Your task to perform on an android device: Show the shopping cart on newegg.com. Image 0: 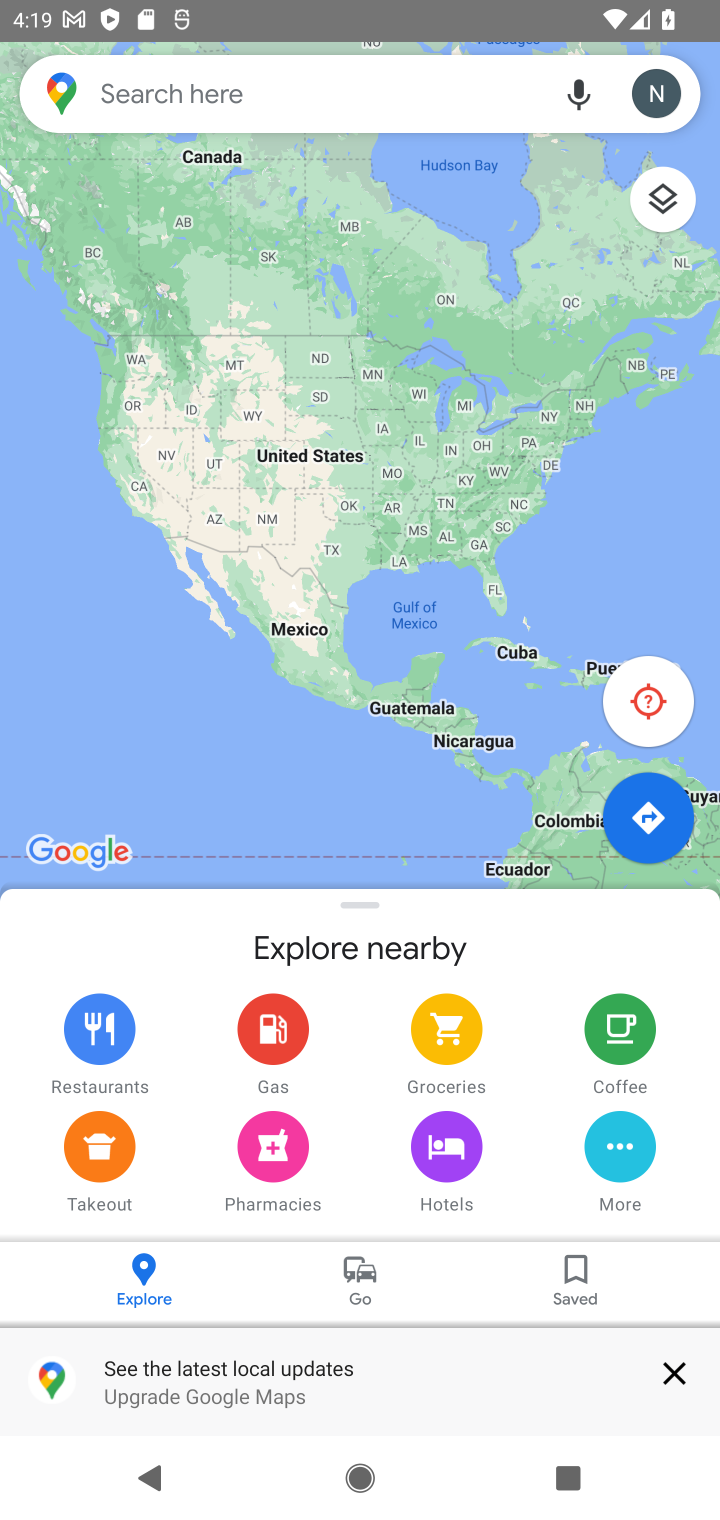
Step 0: press home button
Your task to perform on an android device: Show the shopping cart on newegg.com. Image 1: 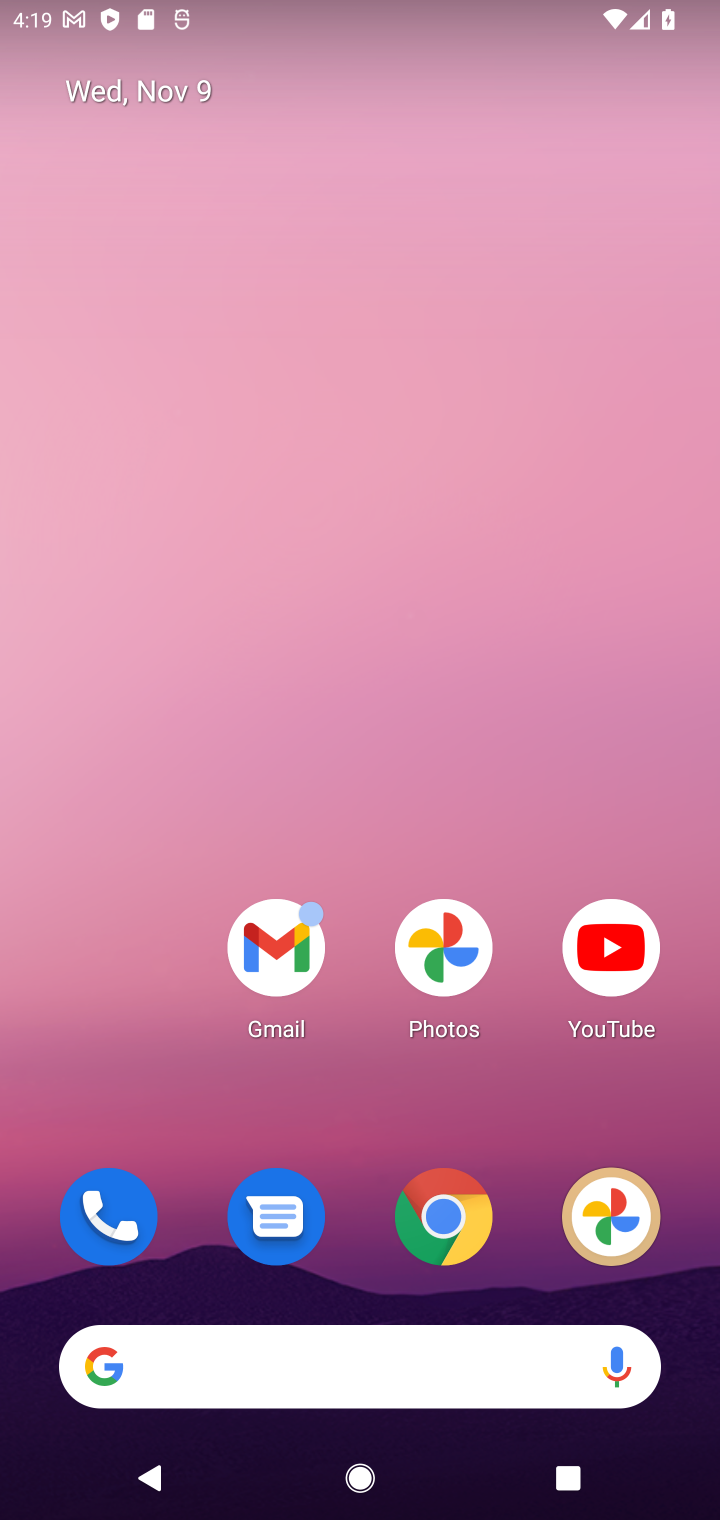
Step 1: drag from (353, 1131) to (320, 250)
Your task to perform on an android device: Show the shopping cart on newegg.com. Image 2: 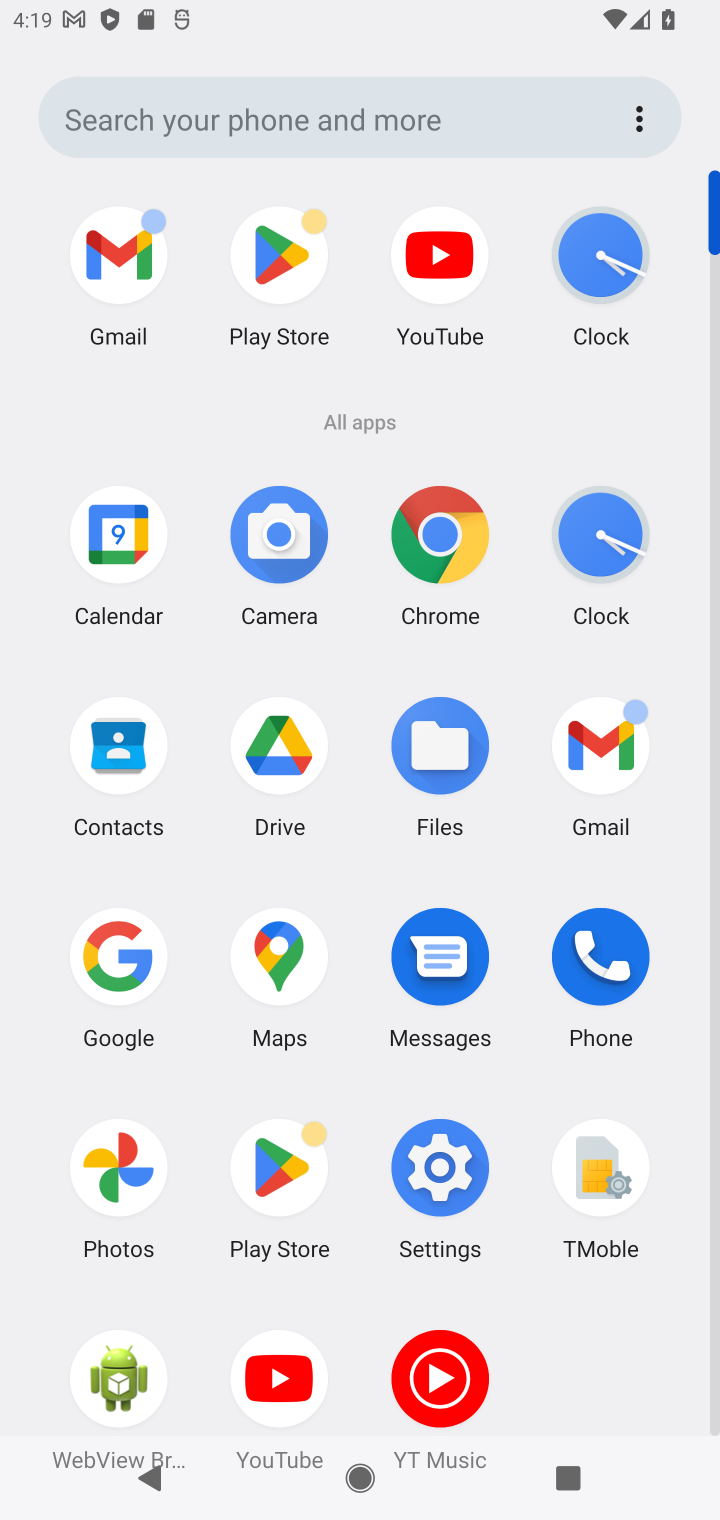
Step 2: click (428, 536)
Your task to perform on an android device: Show the shopping cart on newegg.com. Image 3: 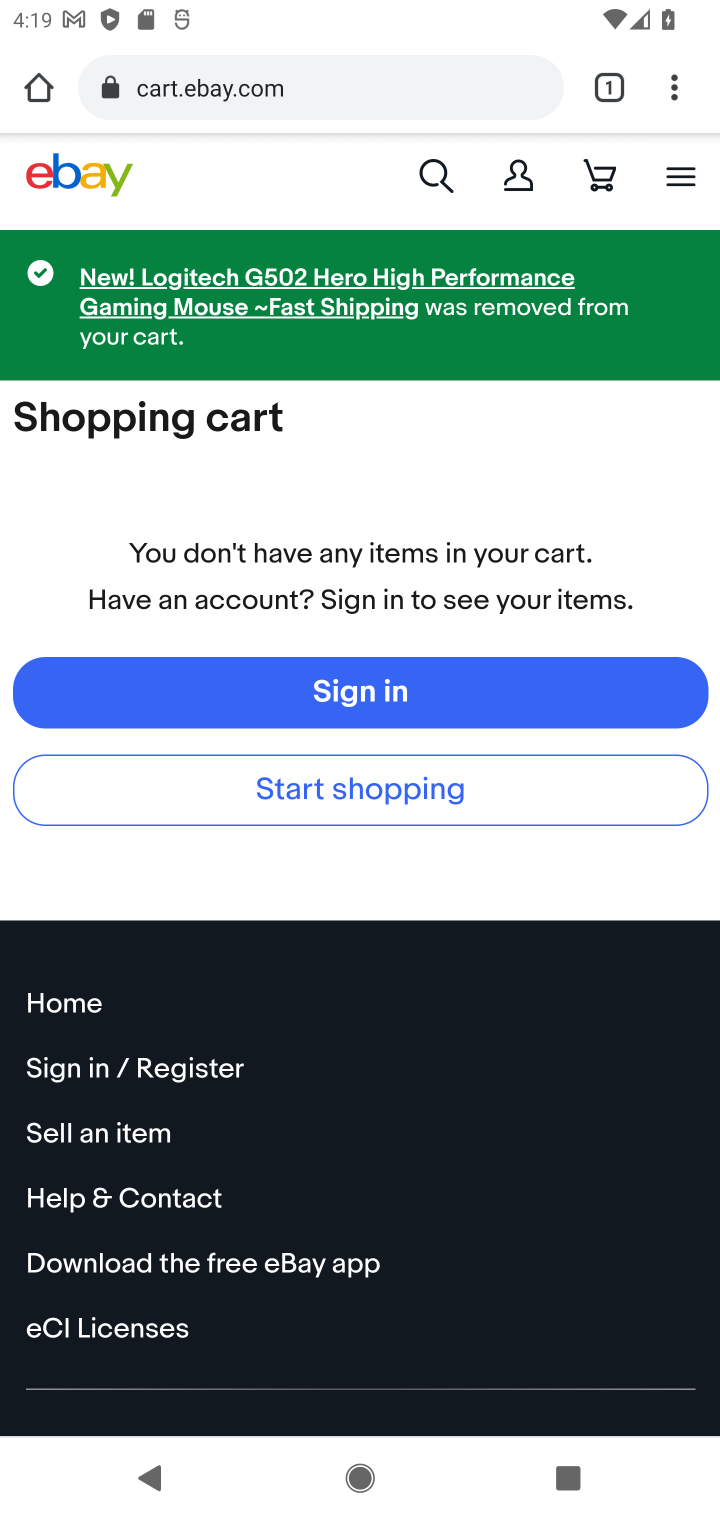
Step 3: click (363, 93)
Your task to perform on an android device: Show the shopping cart on newegg.com. Image 4: 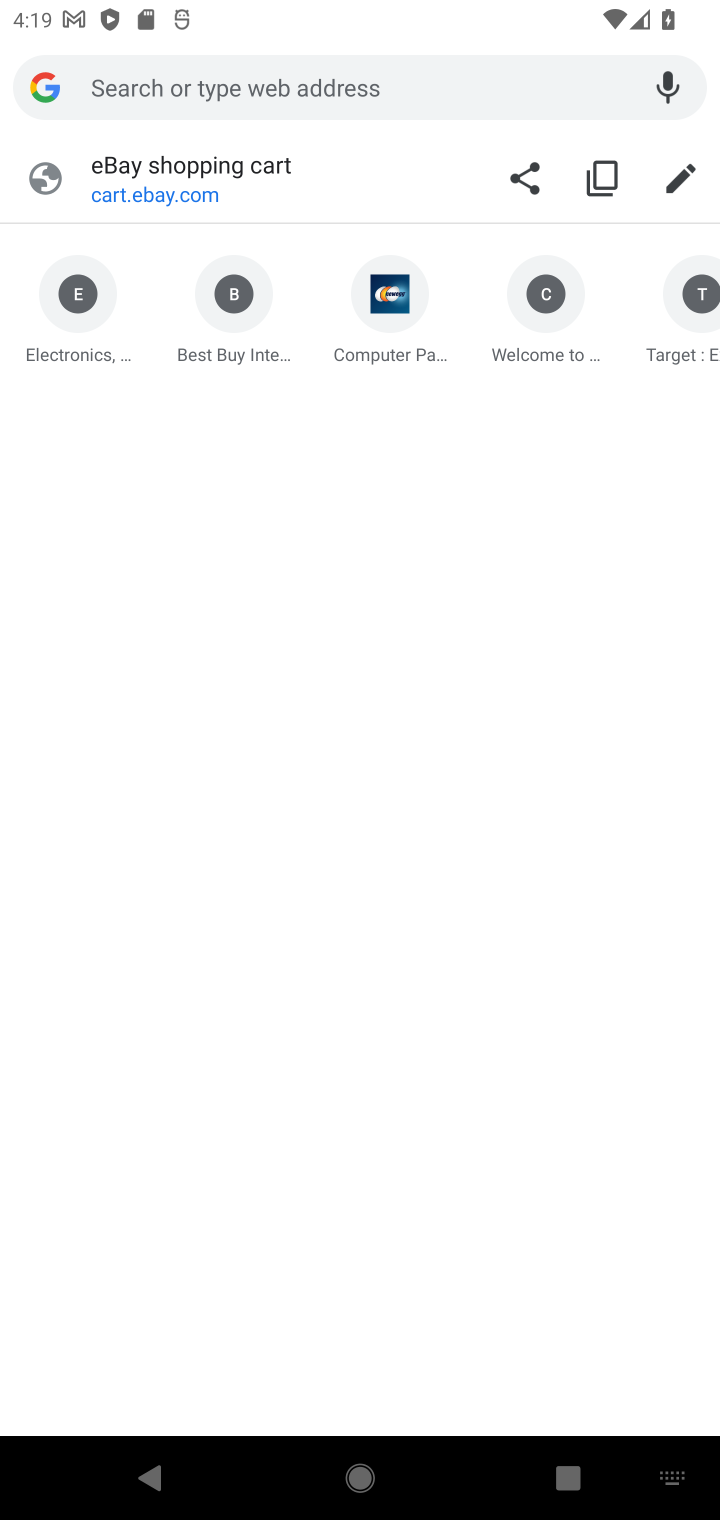
Step 4: type "newegg.com"
Your task to perform on an android device: Show the shopping cart on newegg.com. Image 5: 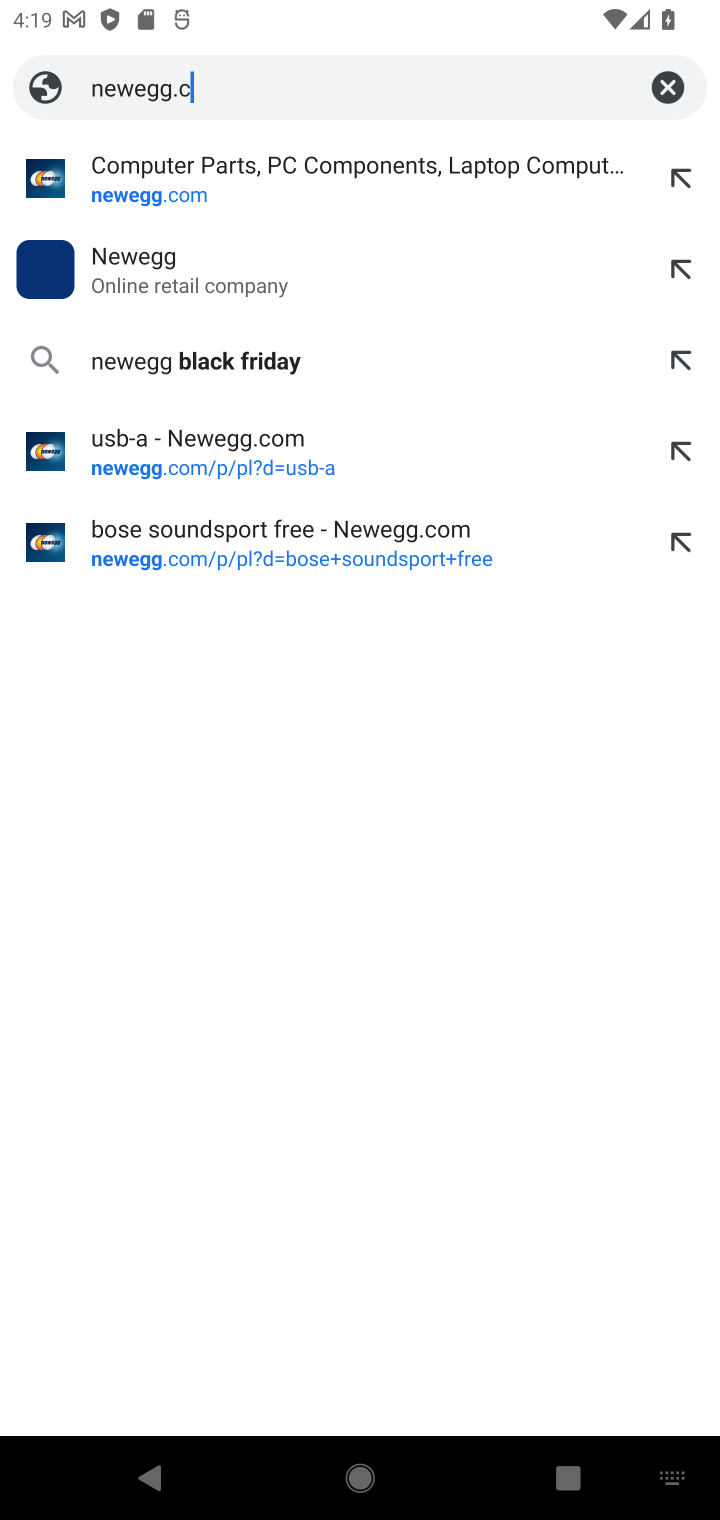
Step 5: press enter
Your task to perform on an android device: Show the shopping cart on newegg.com. Image 6: 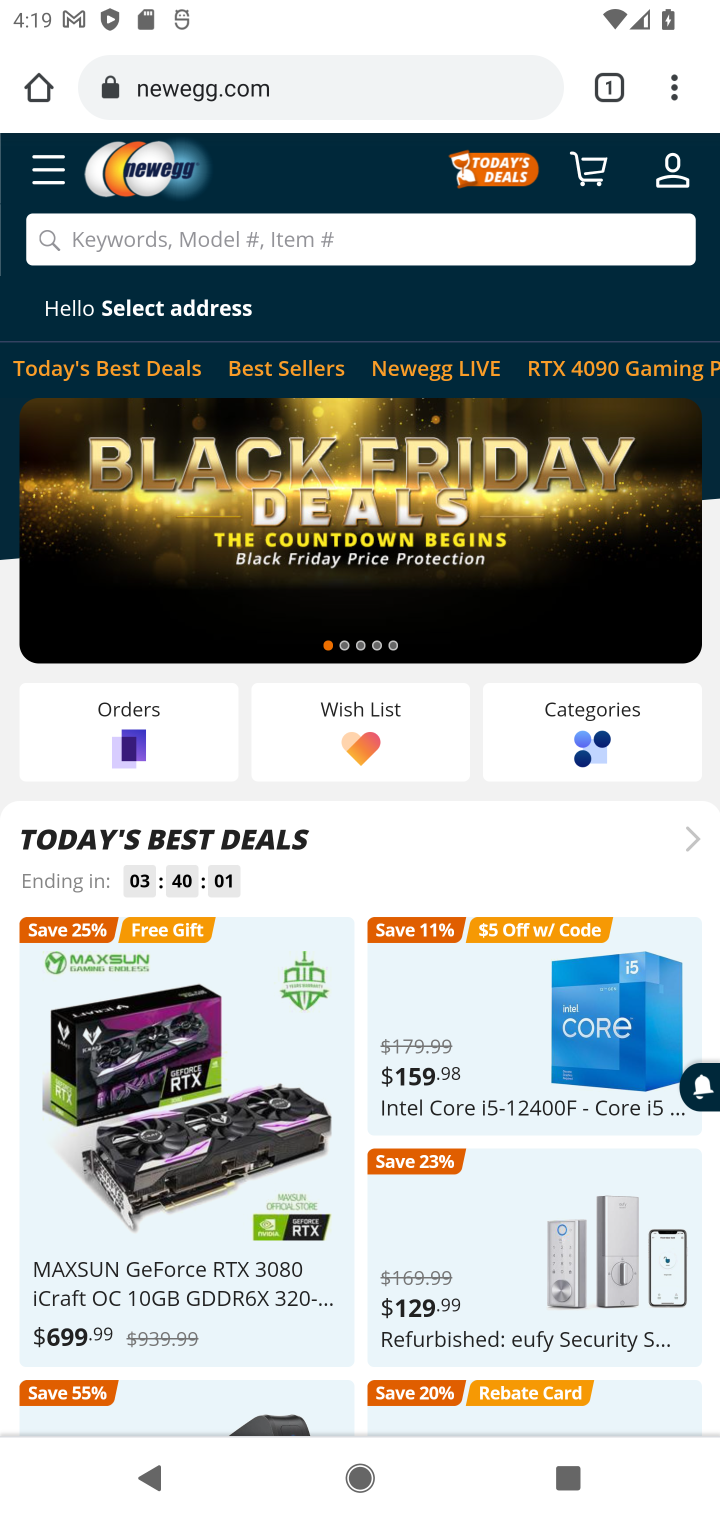
Step 6: click (605, 175)
Your task to perform on an android device: Show the shopping cart on newegg.com. Image 7: 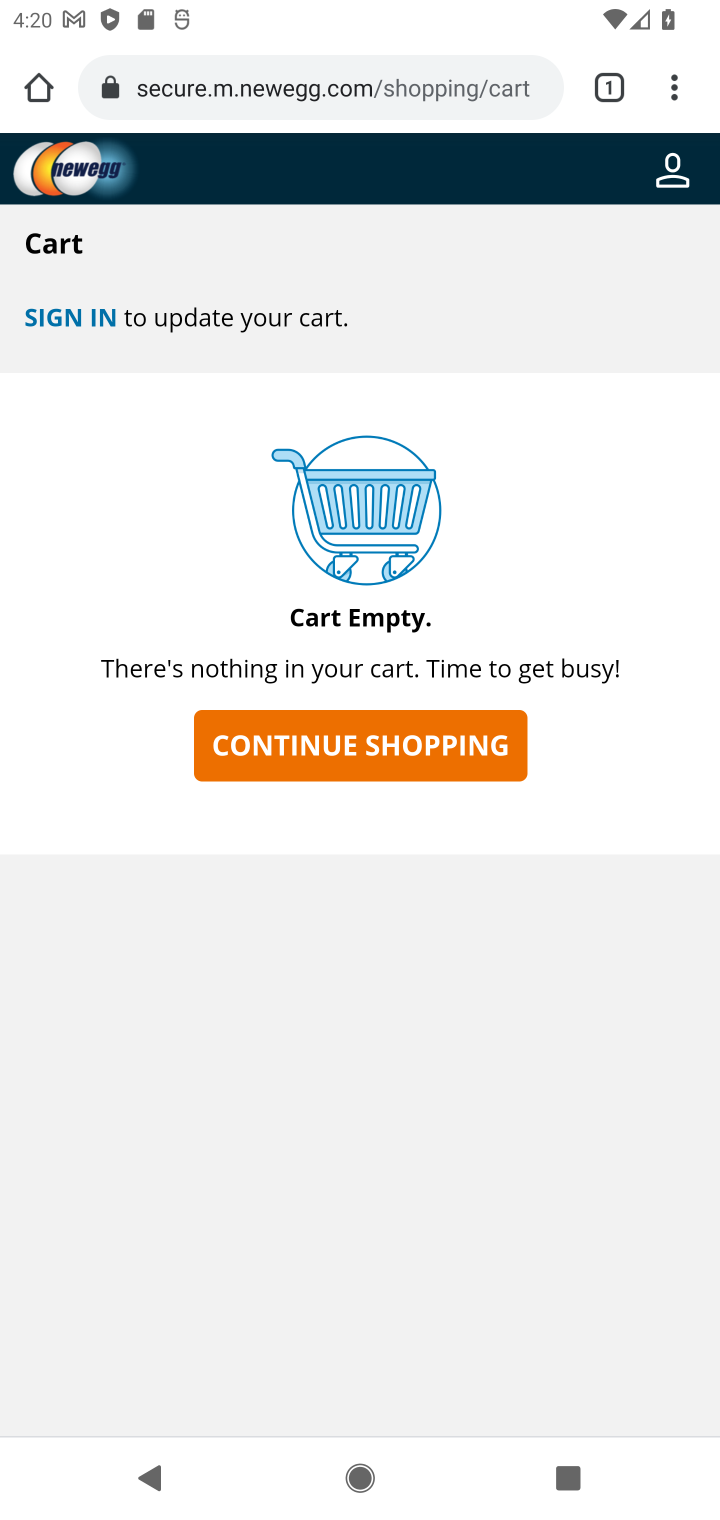
Step 7: task complete